Your task to perform on an android device: visit the assistant section in the google photos Image 0: 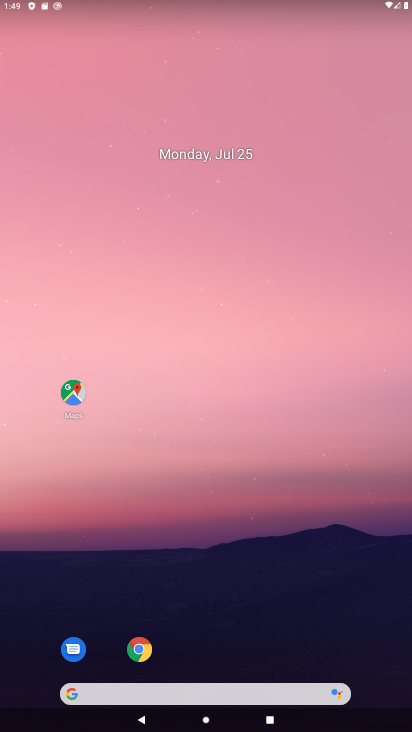
Step 0: drag from (212, 710) to (257, 187)
Your task to perform on an android device: visit the assistant section in the google photos Image 1: 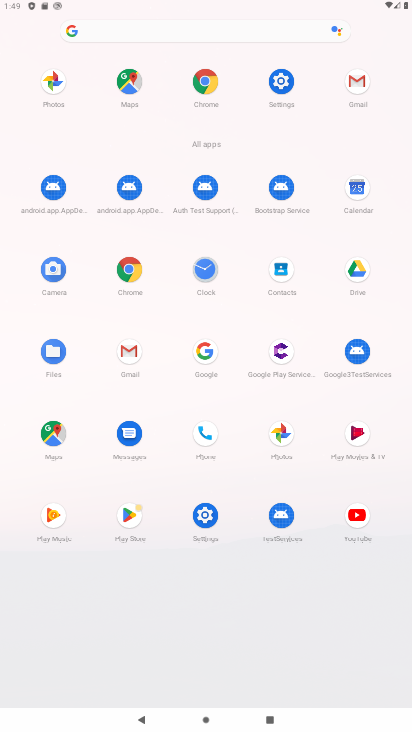
Step 1: click (285, 443)
Your task to perform on an android device: visit the assistant section in the google photos Image 2: 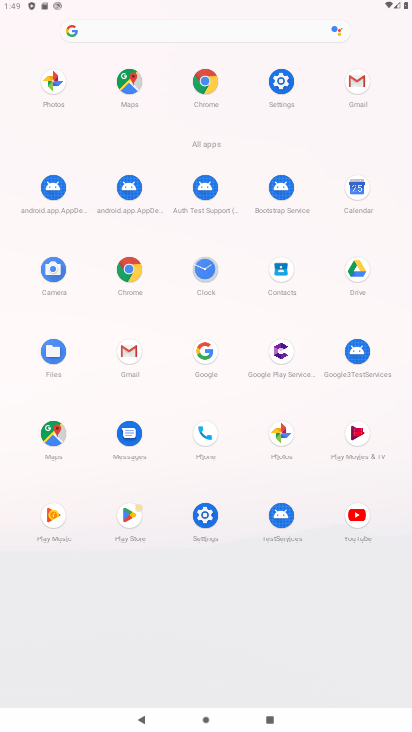
Step 2: click (285, 443)
Your task to perform on an android device: visit the assistant section in the google photos Image 3: 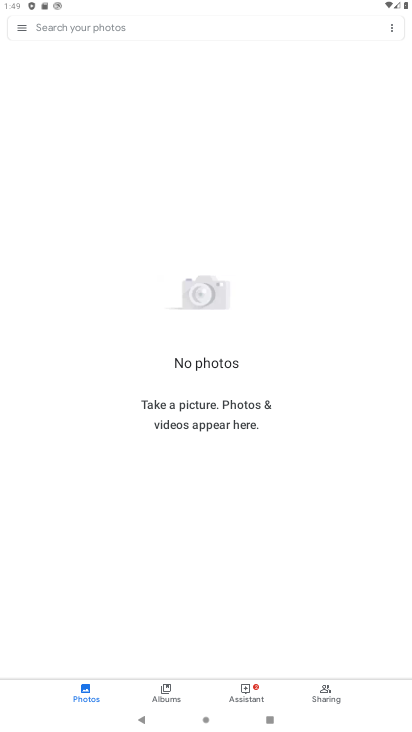
Step 3: click (245, 694)
Your task to perform on an android device: visit the assistant section in the google photos Image 4: 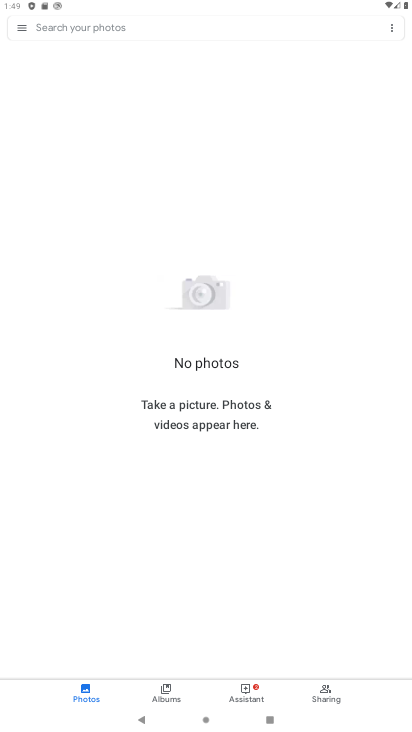
Step 4: click (245, 694)
Your task to perform on an android device: visit the assistant section in the google photos Image 5: 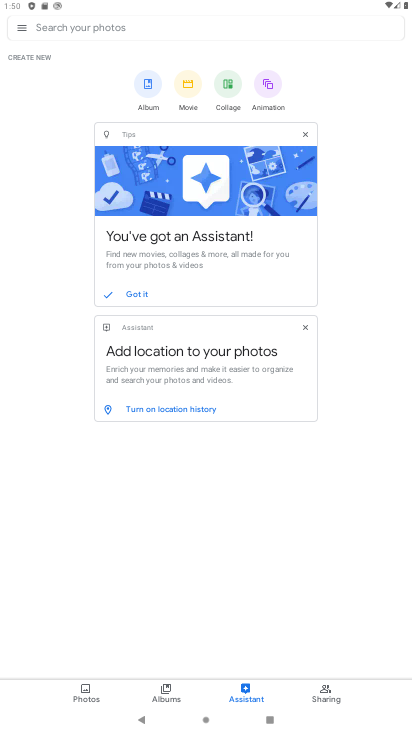
Step 5: task complete